Your task to perform on an android device: change the clock display to analog Image 0: 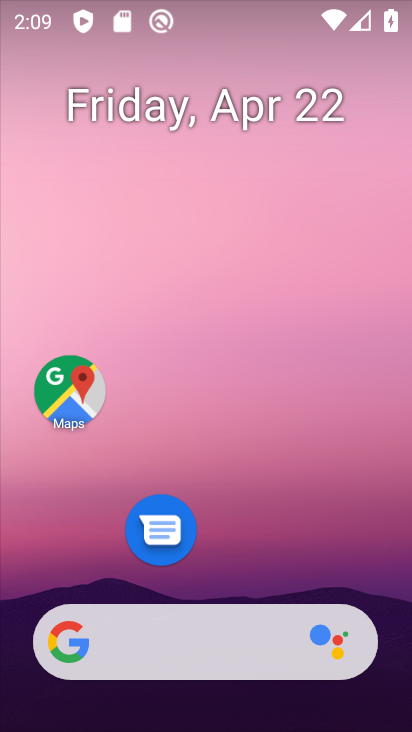
Step 0: drag from (195, 568) to (235, 17)
Your task to perform on an android device: change the clock display to analog Image 1: 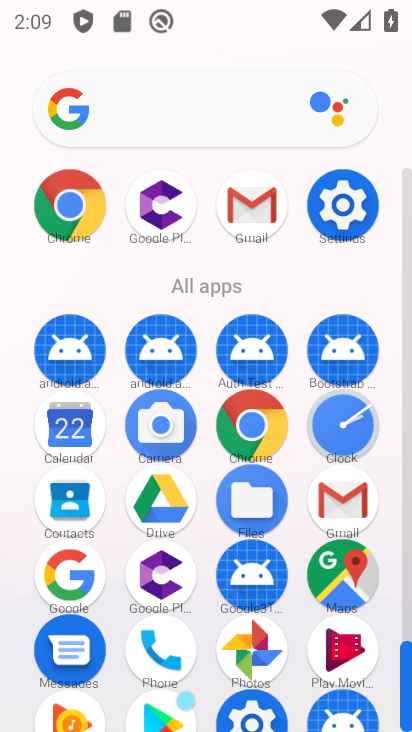
Step 1: click (346, 434)
Your task to perform on an android device: change the clock display to analog Image 2: 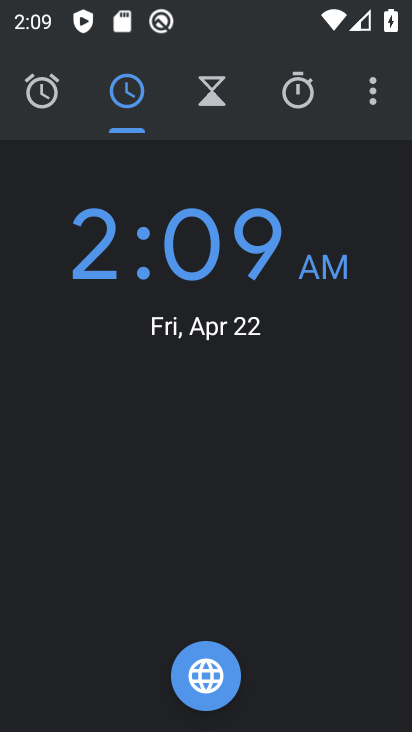
Step 2: click (372, 101)
Your task to perform on an android device: change the clock display to analog Image 3: 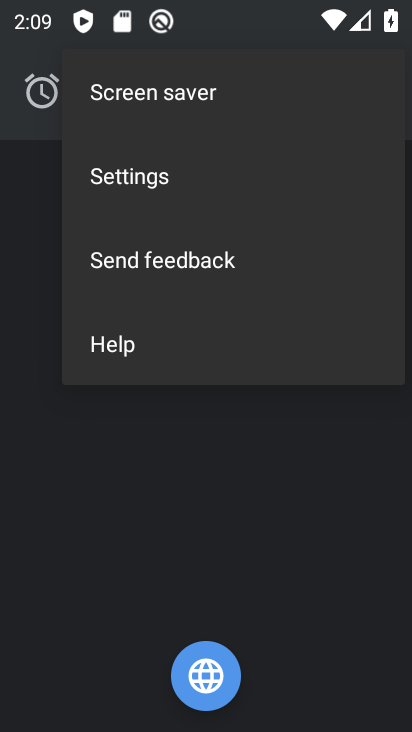
Step 3: click (126, 185)
Your task to perform on an android device: change the clock display to analog Image 4: 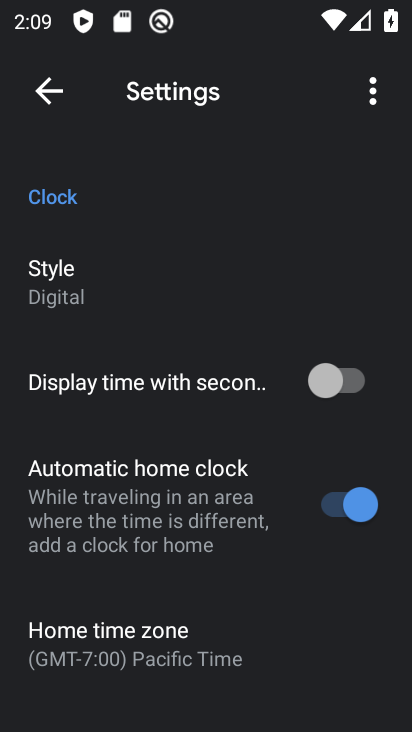
Step 4: click (68, 279)
Your task to perform on an android device: change the clock display to analog Image 5: 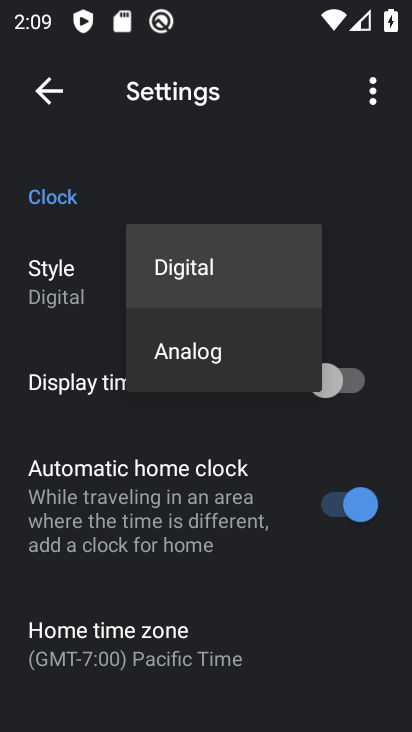
Step 5: click (174, 350)
Your task to perform on an android device: change the clock display to analog Image 6: 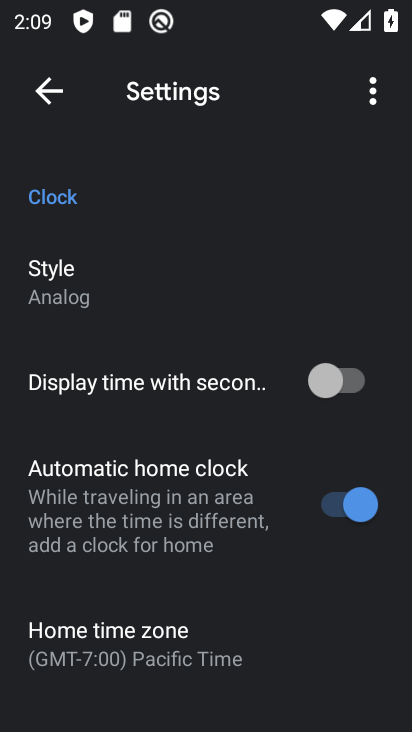
Step 6: task complete